Your task to perform on an android device: What's the weather today? Image 0: 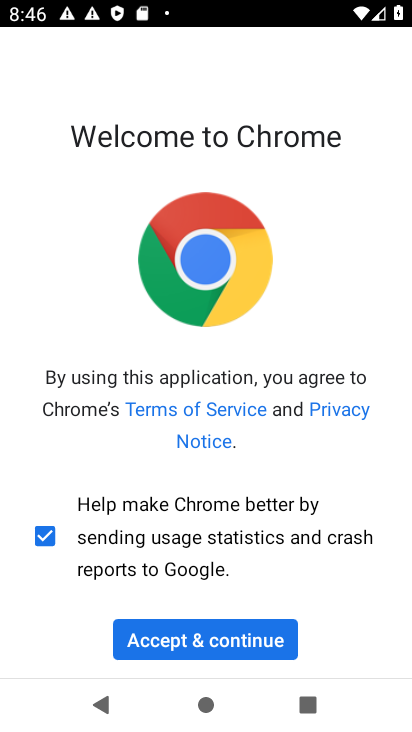
Step 0: press home button
Your task to perform on an android device: What's the weather today? Image 1: 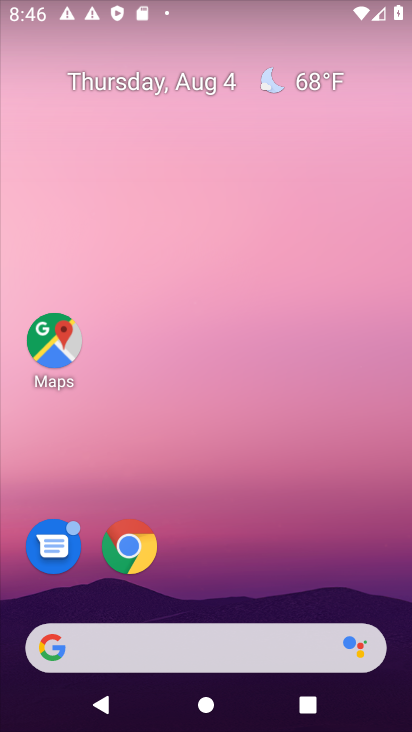
Step 1: click (52, 645)
Your task to perform on an android device: What's the weather today? Image 2: 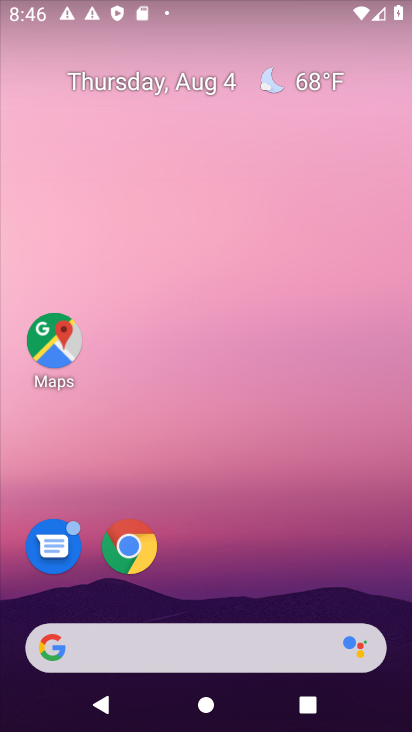
Step 2: click (48, 647)
Your task to perform on an android device: What's the weather today? Image 3: 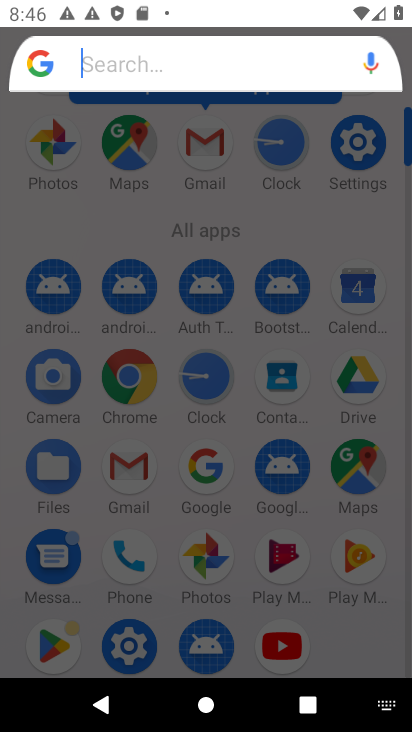
Step 3: click (207, 470)
Your task to perform on an android device: What's the weather today? Image 4: 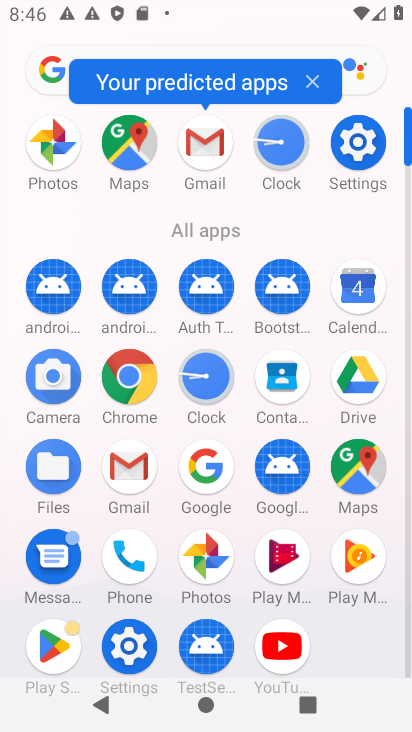
Step 4: click (317, 82)
Your task to perform on an android device: What's the weather today? Image 5: 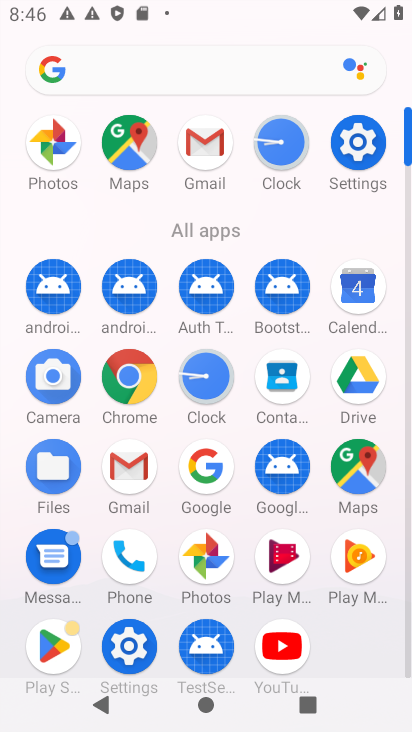
Step 5: click (196, 472)
Your task to perform on an android device: What's the weather today? Image 6: 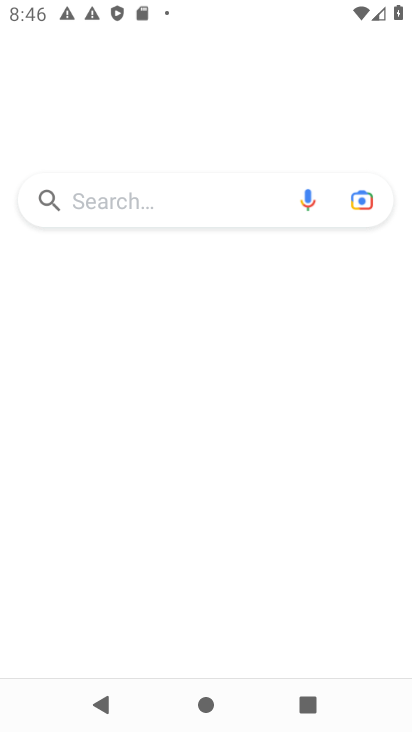
Step 6: click (106, 207)
Your task to perform on an android device: What's the weather today? Image 7: 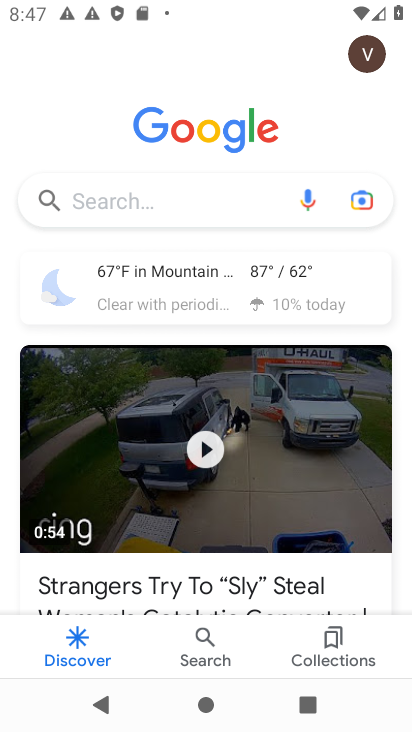
Step 7: press enter
Your task to perform on an android device: What's the weather today? Image 8: 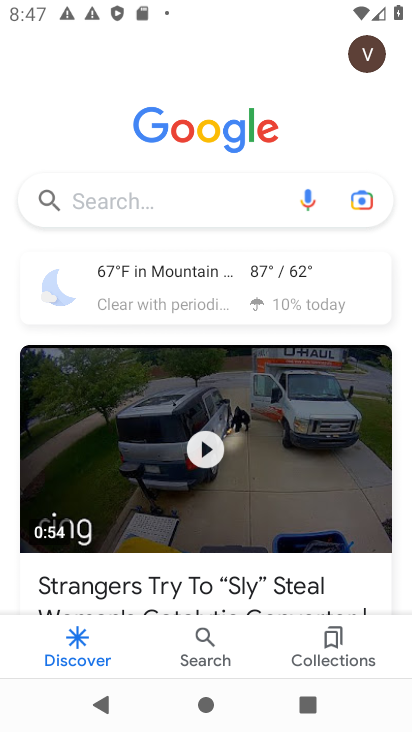
Step 8: type "weather today?"
Your task to perform on an android device: What's the weather today? Image 9: 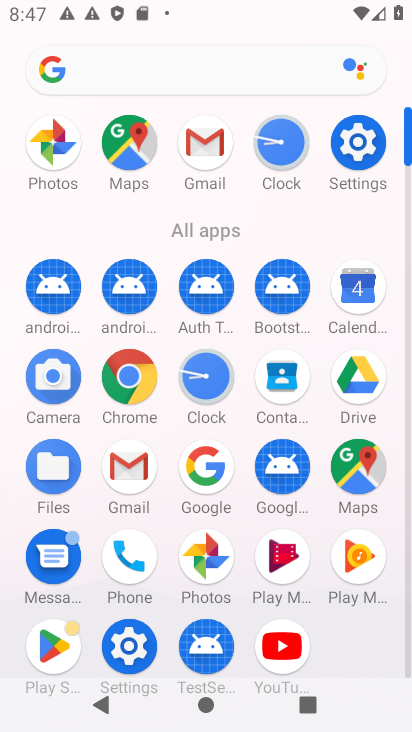
Step 9: press enter
Your task to perform on an android device: What's the weather today? Image 10: 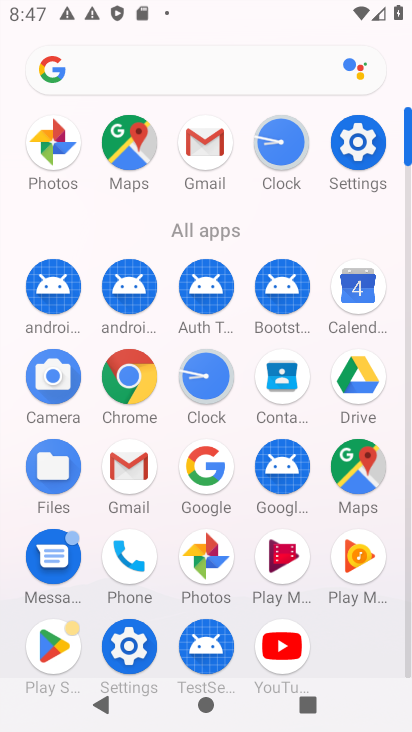
Step 10: type "weather today?"
Your task to perform on an android device: What's the weather today? Image 11: 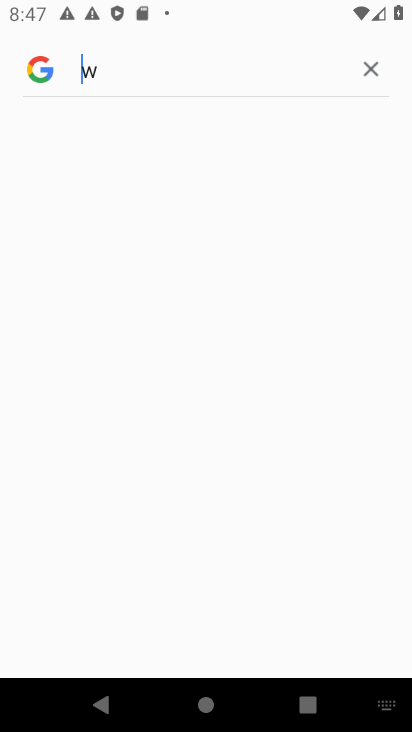
Step 11: click (176, 69)
Your task to perform on an android device: What's the weather today? Image 12: 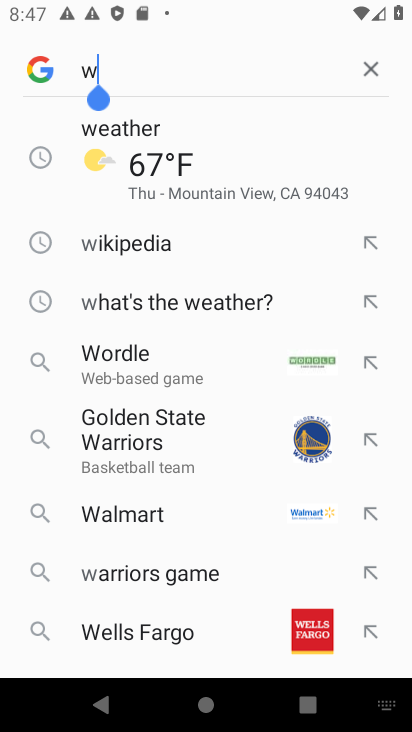
Step 12: click (372, 66)
Your task to perform on an android device: What's the weather today? Image 13: 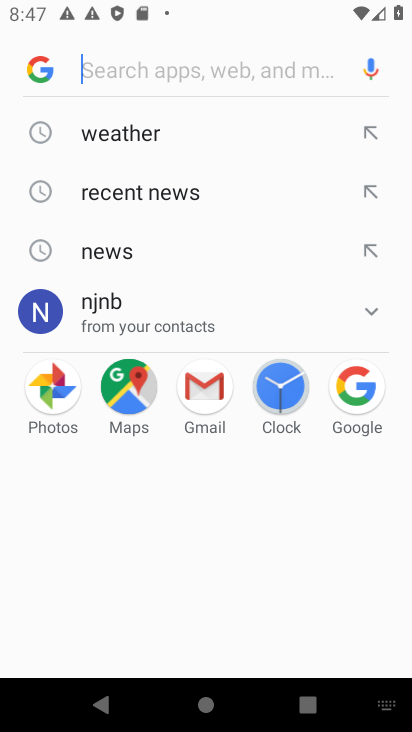
Step 13: type "weather today?"
Your task to perform on an android device: What's the weather today? Image 14: 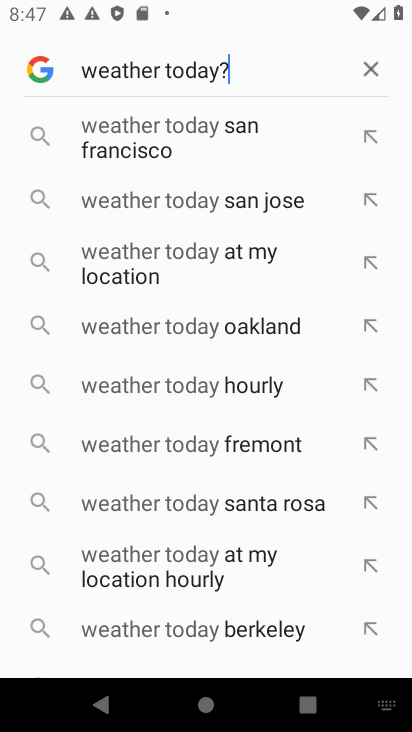
Step 14: press enter
Your task to perform on an android device: What's the weather today? Image 15: 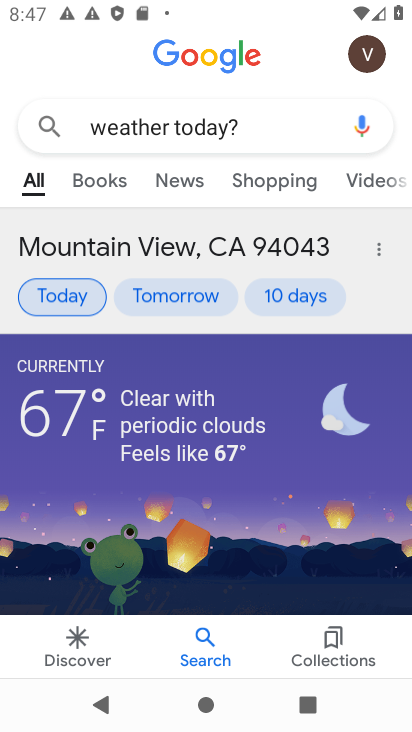
Step 15: task complete